Your task to perform on an android device: see sites visited before in the chrome app Image 0: 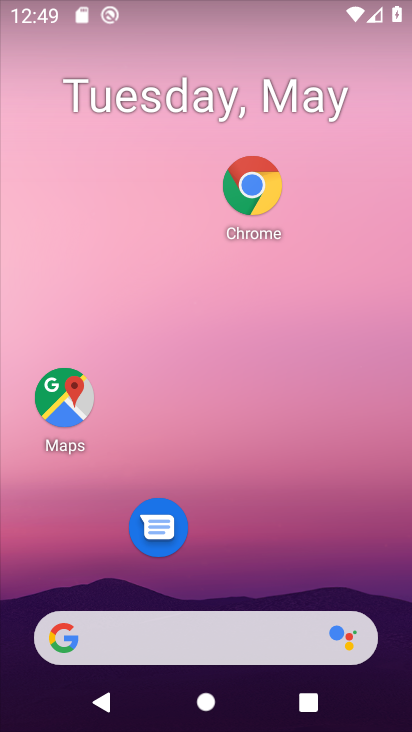
Step 0: click (252, 183)
Your task to perform on an android device: see sites visited before in the chrome app Image 1: 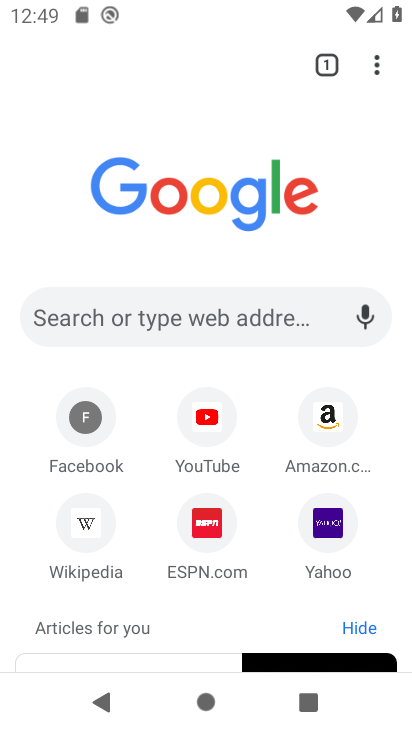
Step 1: click (377, 61)
Your task to perform on an android device: see sites visited before in the chrome app Image 2: 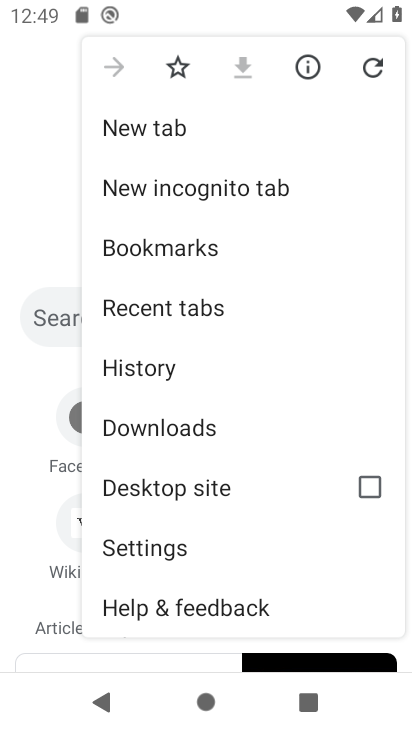
Step 2: click (159, 372)
Your task to perform on an android device: see sites visited before in the chrome app Image 3: 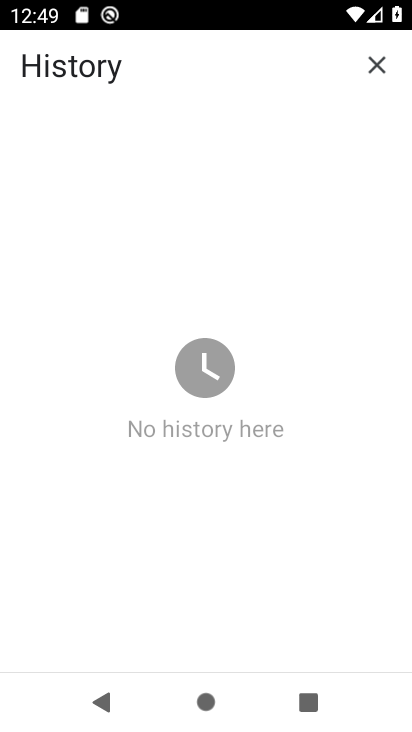
Step 3: task complete